Your task to perform on an android device: check battery use Image 0: 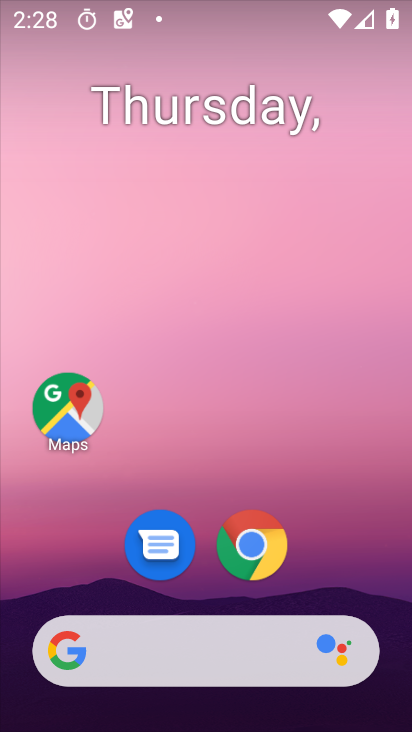
Step 0: drag from (228, 715) to (228, 29)
Your task to perform on an android device: check battery use Image 1: 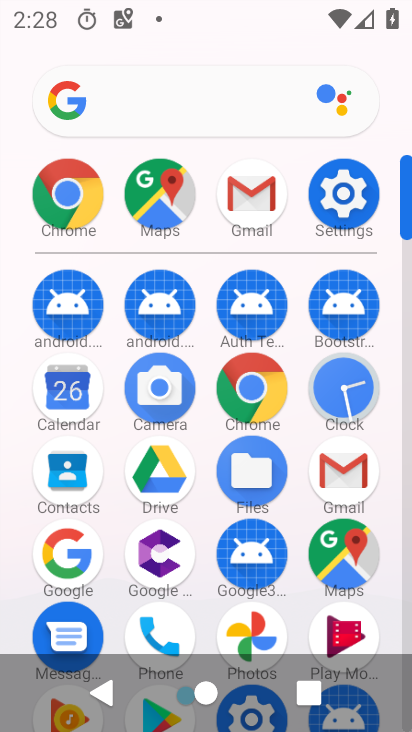
Step 1: click (334, 178)
Your task to perform on an android device: check battery use Image 2: 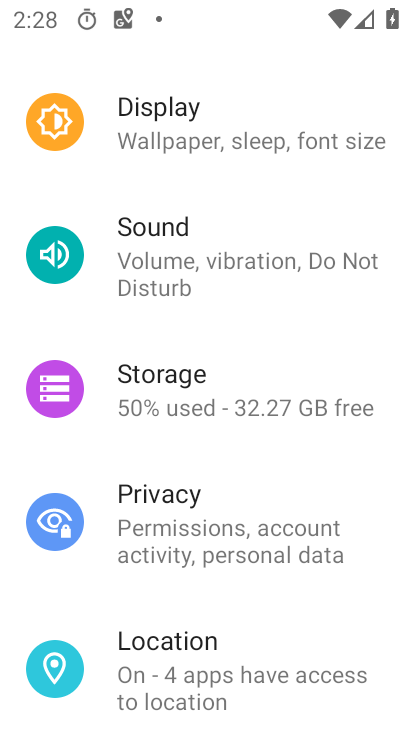
Step 2: drag from (205, 168) to (204, 608)
Your task to perform on an android device: check battery use Image 3: 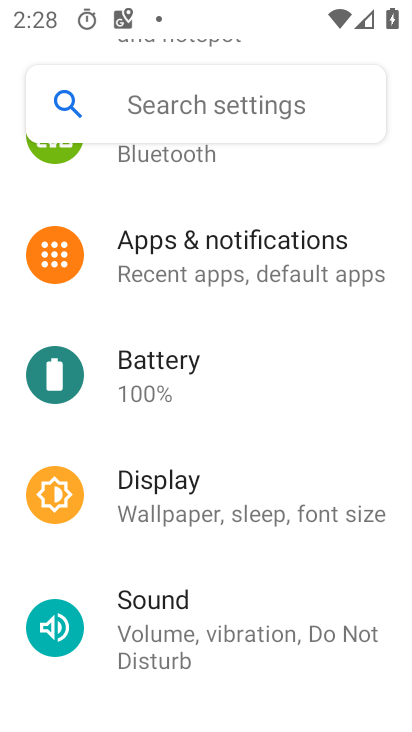
Step 3: click (138, 351)
Your task to perform on an android device: check battery use Image 4: 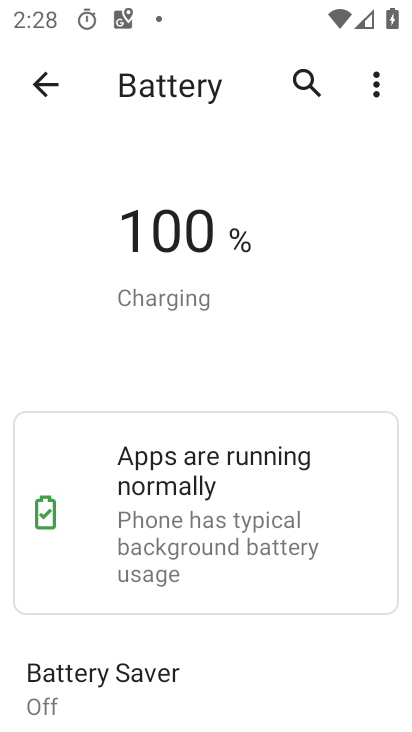
Step 4: click (375, 90)
Your task to perform on an android device: check battery use Image 5: 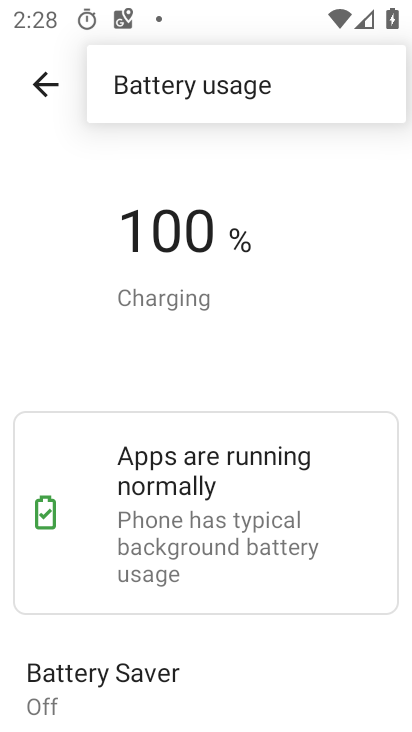
Step 5: click (191, 83)
Your task to perform on an android device: check battery use Image 6: 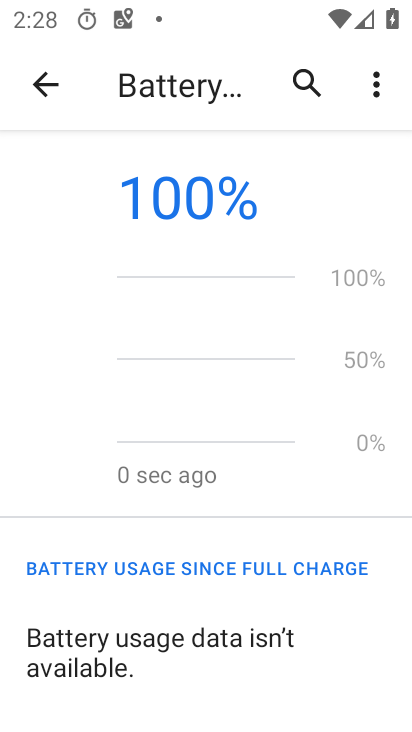
Step 6: task complete